Your task to perform on an android device: Search for pizza restaurants on Maps Image 0: 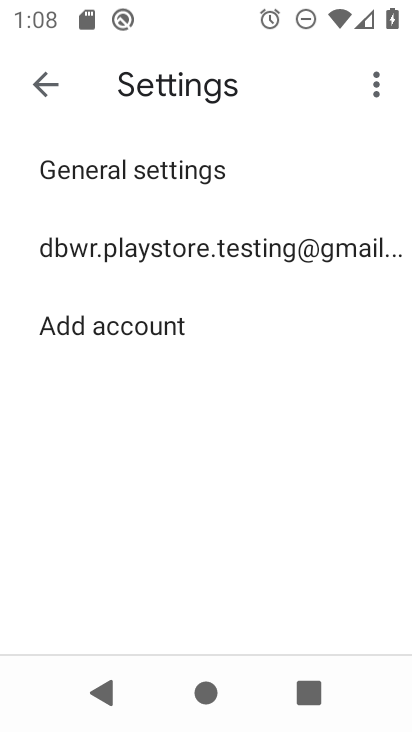
Step 0: press home button
Your task to perform on an android device: Search for pizza restaurants on Maps Image 1: 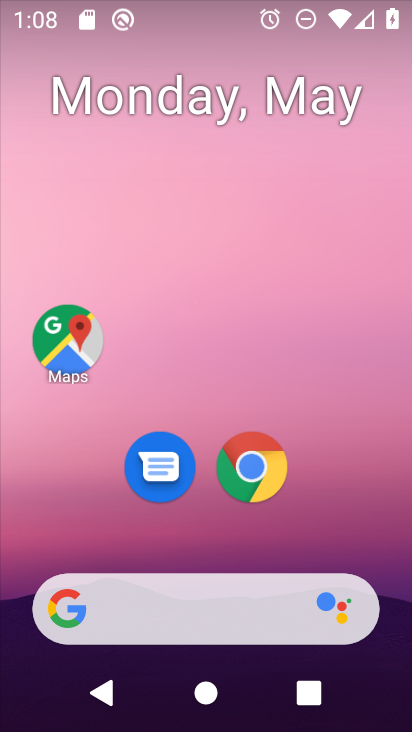
Step 1: click (74, 343)
Your task to perform on an android device: Search for pizza restaurants on Maps Image 2: 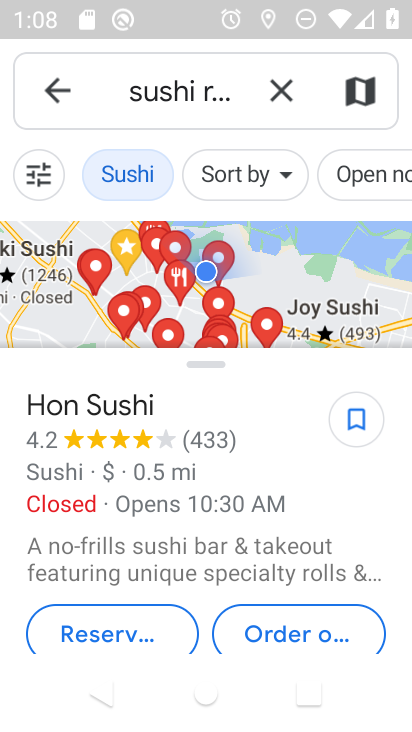
Step 2: click (285, 95)
Your task to perform on an android device: Search for pizza restaurants on Maps Image 3: 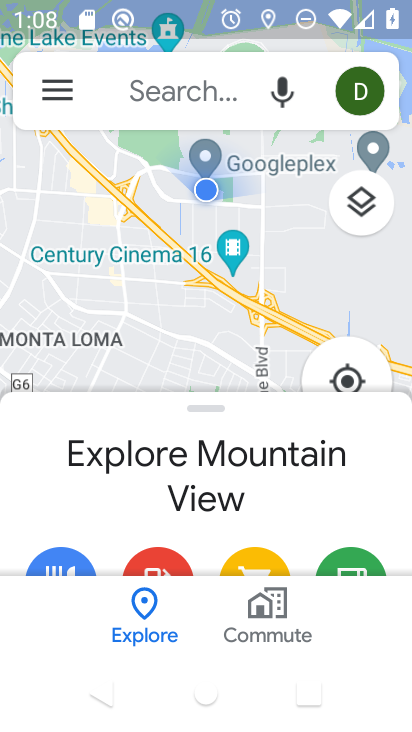
Step 3: click (124, 91)
Your task to perform on an android device: Search for pizza restaurants on Maps Image 4: 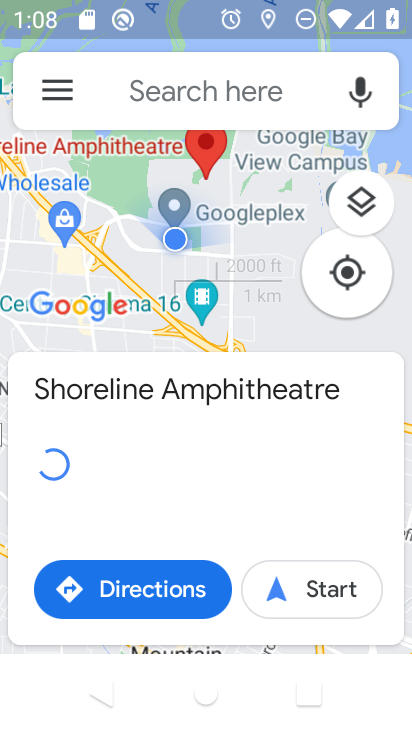
Step 4: click (130, 89)
Your task to perform on an android device: Search for pizza restaurants on Maps Image 5: 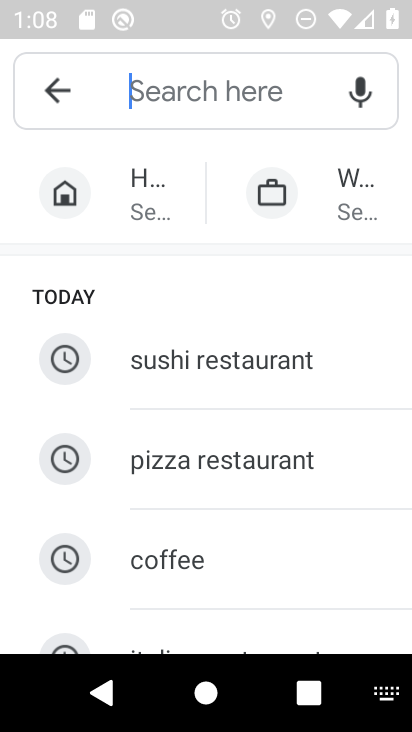
Step 5: type "pizza restaurant"
Your task to perform on an android device: Search for pizza restaurants on Maps Image 6: 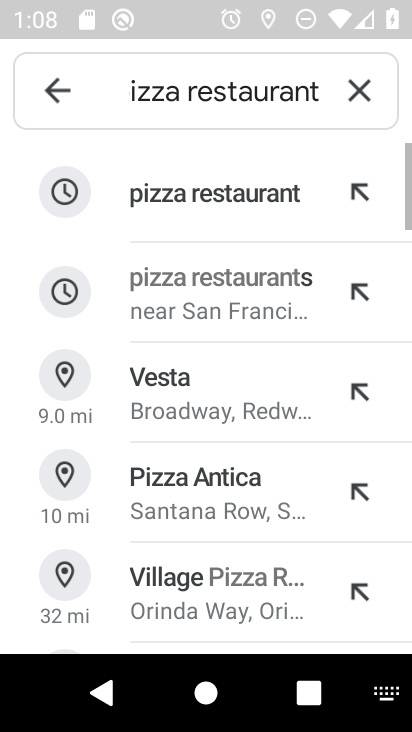
Step 6: click (206, 188)
Your task to perform on an android device: Search for pizza restaurants on Maps Image 7: 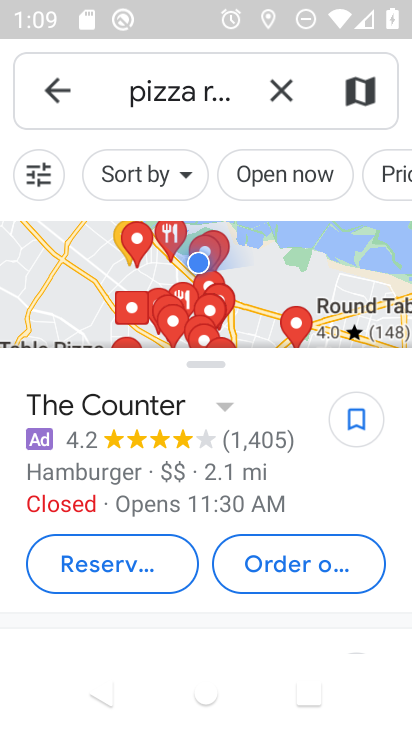
Step 7: task complete